Your task to perform on an android device: check out phone information Image 0: 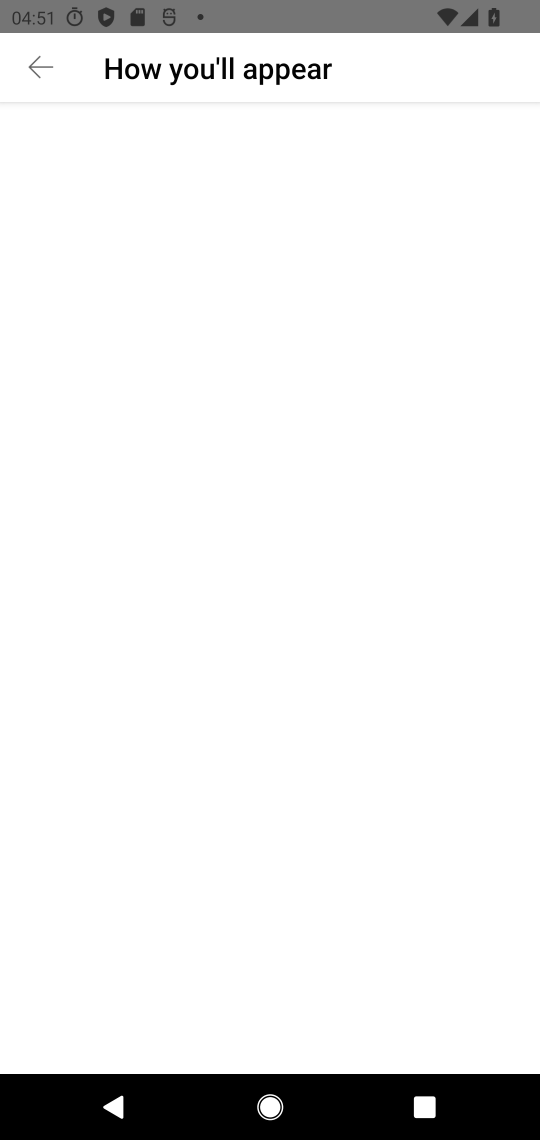
Step 0: press home button
Your task to perform on an android device: check out phone information Image 1: 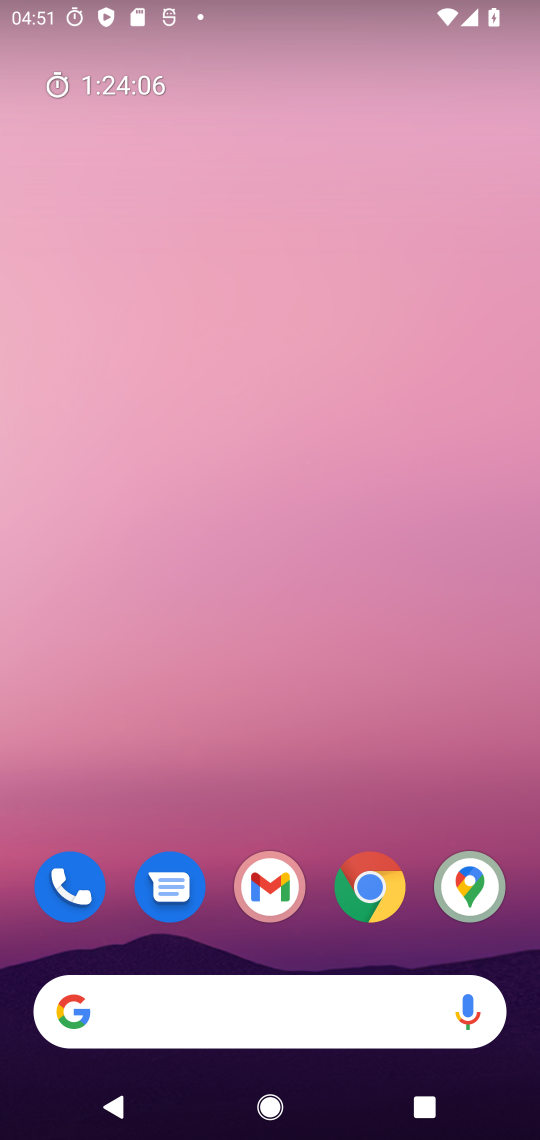
Step 1: drag from (373, 736) to (376, 330)
Your task to perform on an android device: check out phone information Image 2: 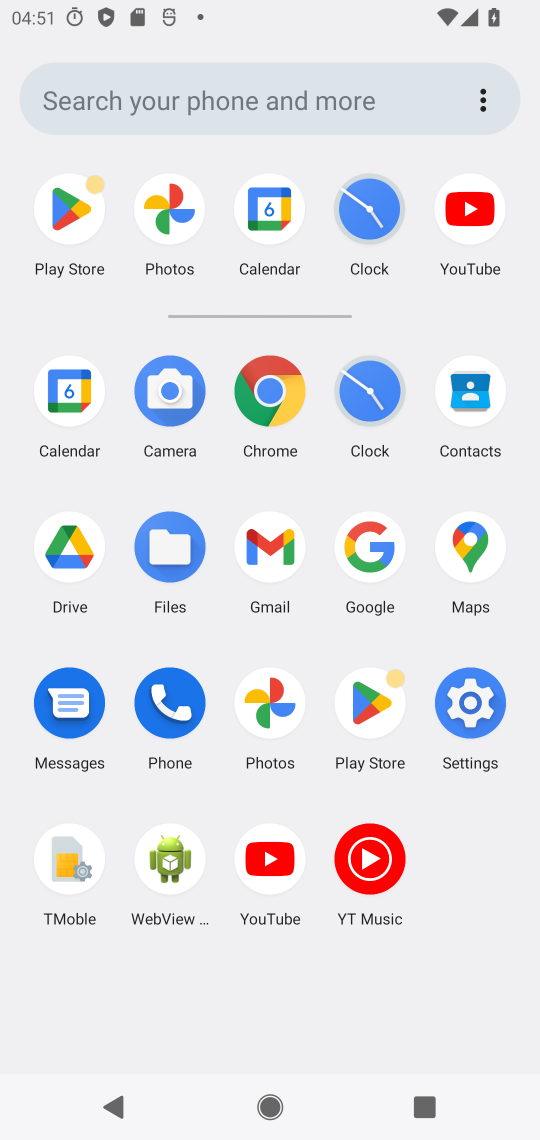
Step 2: click (161, 703)
Your task to perform on an android device: check out phone information Image 3: 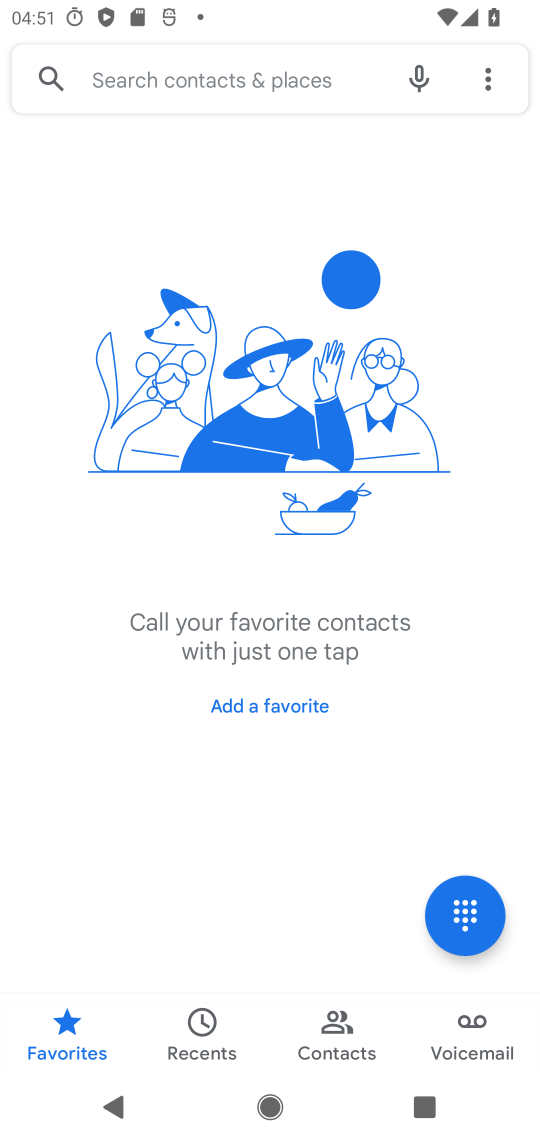
Step 3: task complete